Your task to perform on an android device: open the mobile data screen to see how much data has been used Image 0: 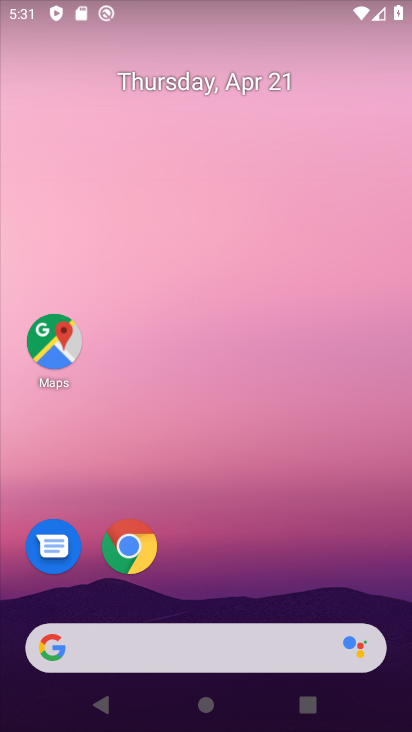
Step 0: drag from (266, 596) to (311, 7)
Your task to perform on an android device: open the mobile data screen to see how much data has been used Image 1: 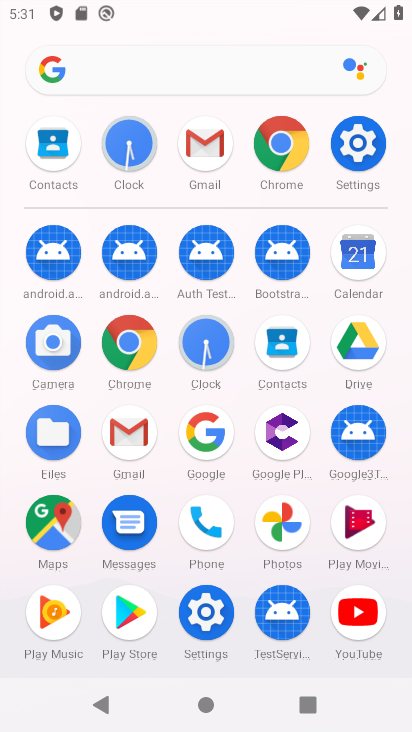
Step 1: click (370, 142)
Your task to perform on an android device: open the mobile data screen to see how much data has been used Image 2: 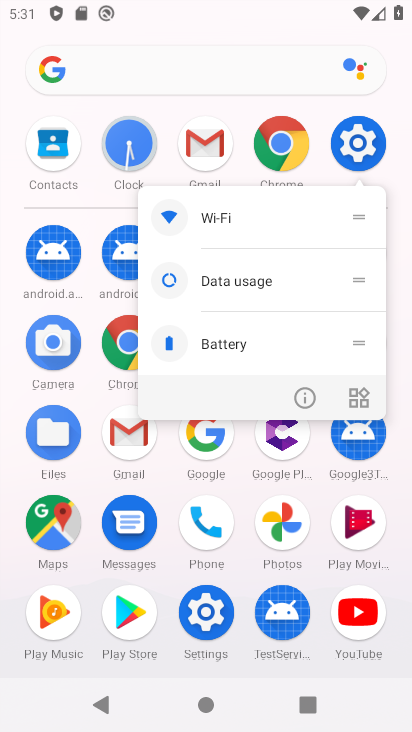
Step 2: click (364, 132)
Your task to perform on an android device: open the mobile data screen to see how much data has been used Image 3: 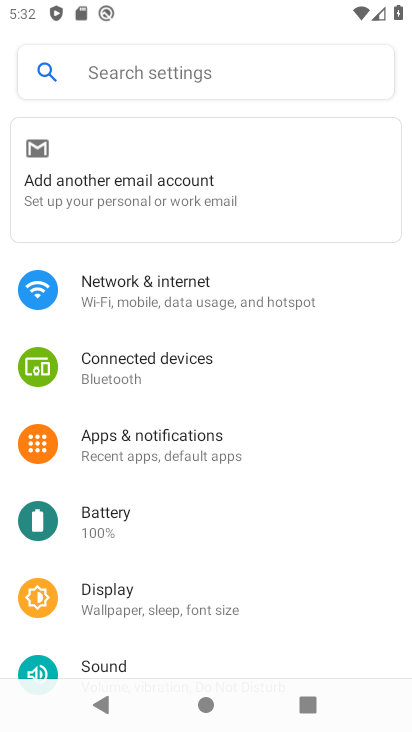
Step 3: click (129, 296)
Your task to perform on an android device: open the mobile data screen to see how much data has been used Image 4: 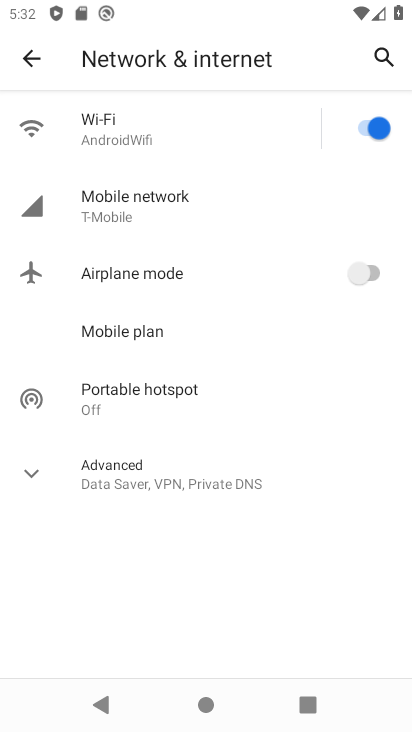
Step 4: click (150, 208)
Your task to perform on an android device: open the mobile data screen to see how much data has been used Image 5: 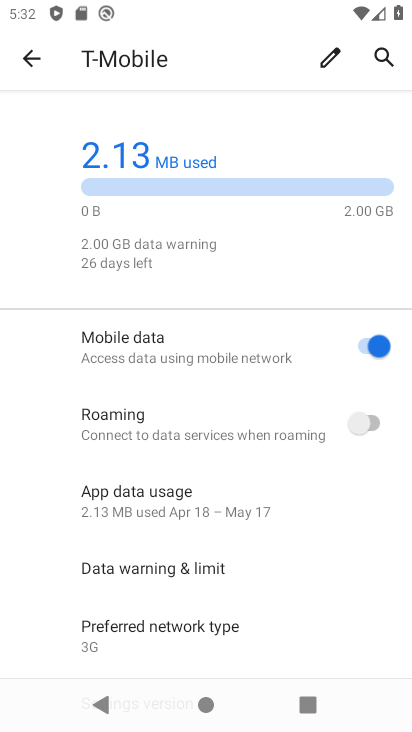
Step 5: task complete